Your task to perform on an android device: Open the calendar and show me this week's events Image 0: 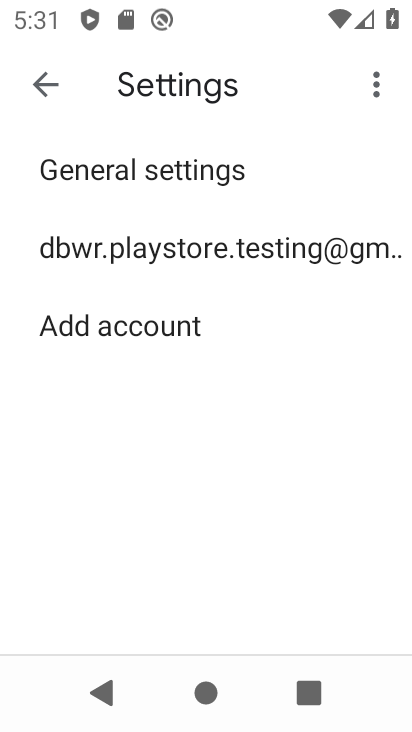
Step 0: press back button
Your task to perform on an android device: Open the calendar and show me this week's events Image 1: 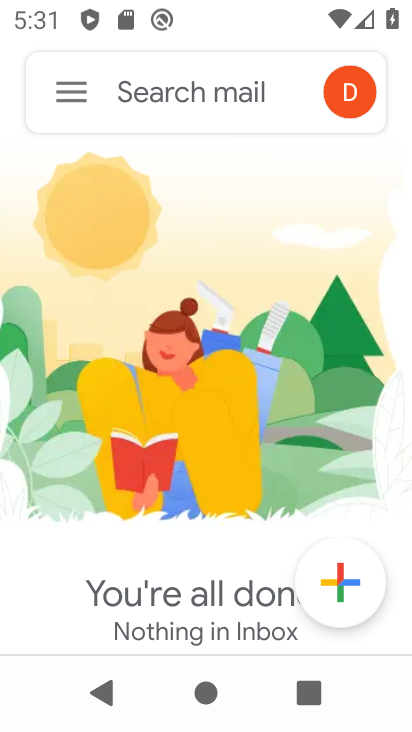
Step 1: press back button
Your task to perform on an android device: Open the calendar and show me this week's events Image 2: 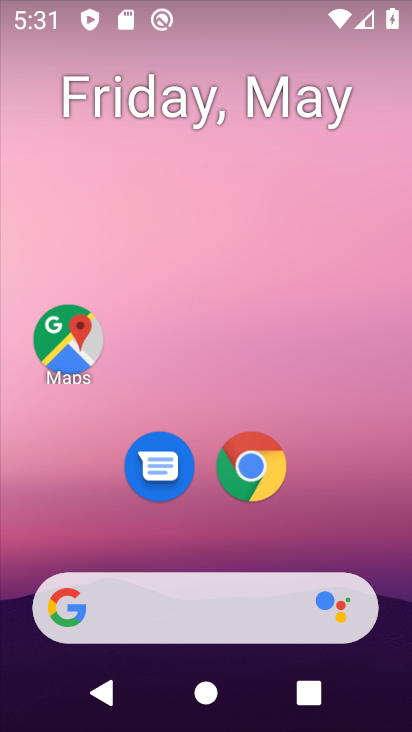
Step 2: drag from (406, 554) to (248, 3)
Your task to perform on an android device: Open the calendar and show me this week's events Image 3: 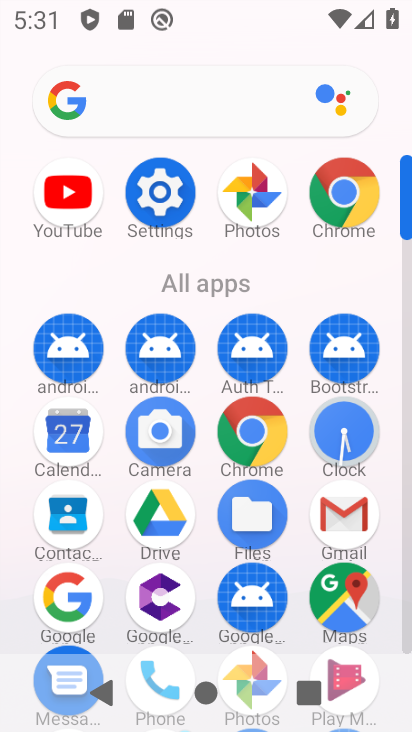
Step 3: drag from (6, 601) to (5, 278)
Your task to perform on an android device: Open the calendar and show me this week's events Image 4: 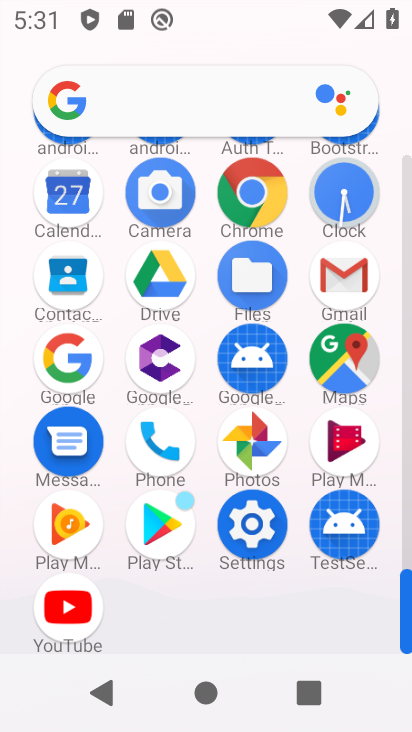
Step 4: click (67, 188)
Your task to perform on an android device: Open the calendar and show me this week's events Image 5: 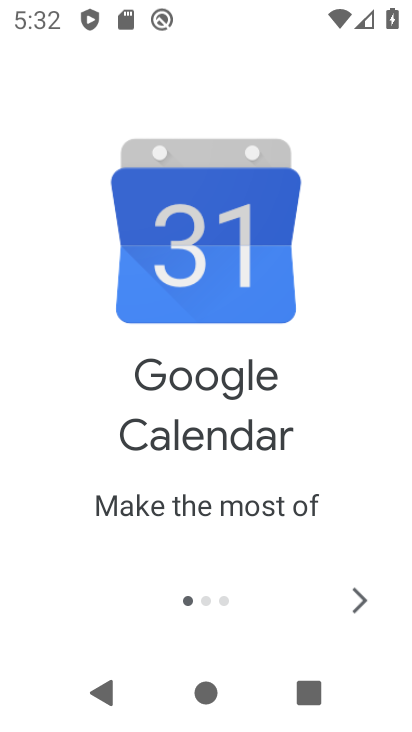
Step 5: click (359, 605)
Your task to perform on an android device: Open the calendar and show me this week's events Image 6: 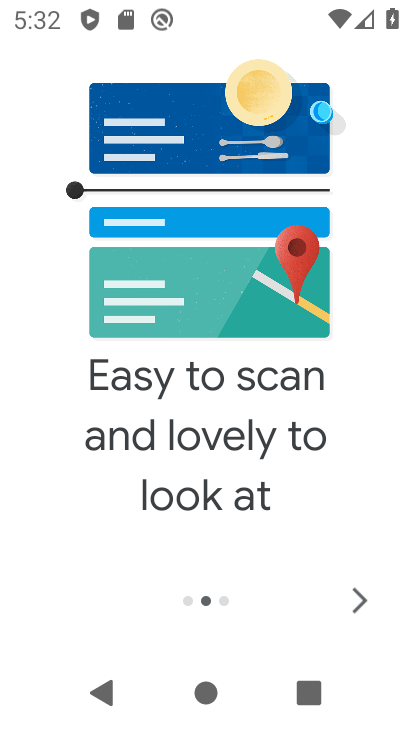
Step 6: click (357, 605)
Your task to perform on an android device: Open the calendar and show me this week's events Image 7: 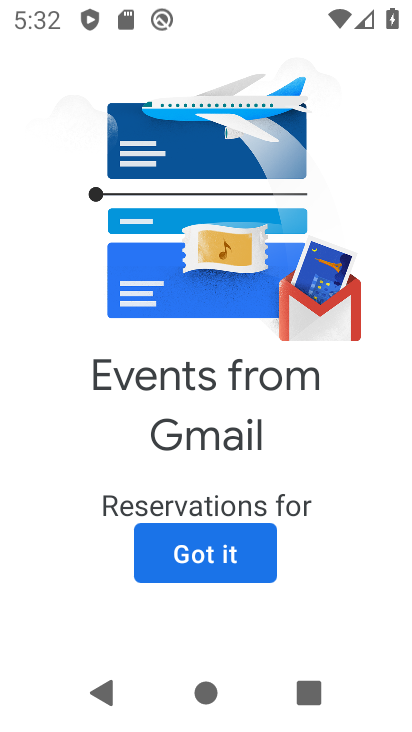
Step 7: click (238, 554)
Your task to perform on an android device: Open the calendar and show me this week's events Image 8: 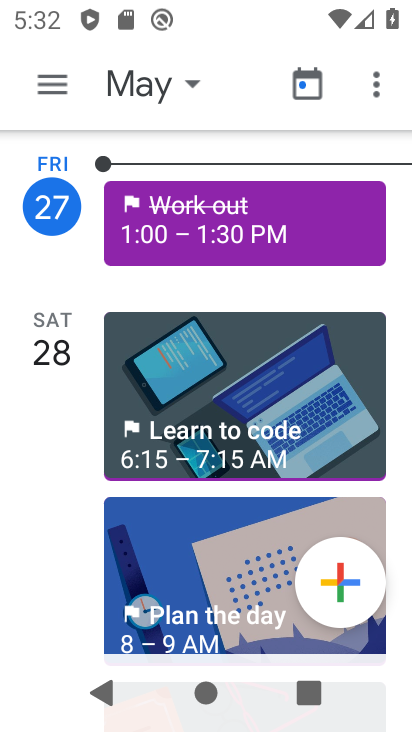
Step 8: click (58, 83)
Your task to perform on an android device: Open the calendar and show me this week's events Image 9: 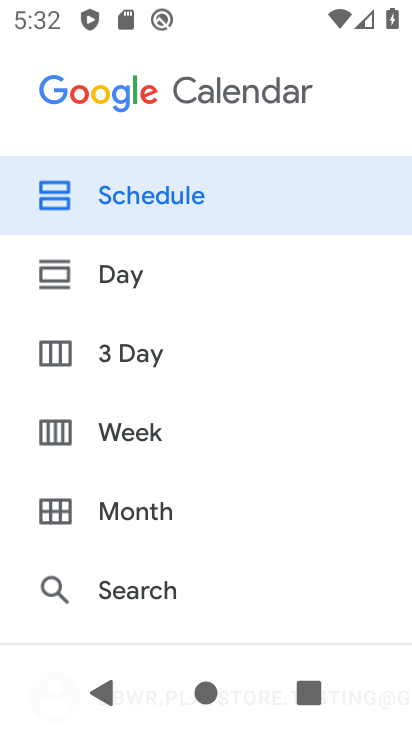
Step 9: click (144, 433)
Your task to perform on an android device: Open the calendar and show me this week's events Image 10: 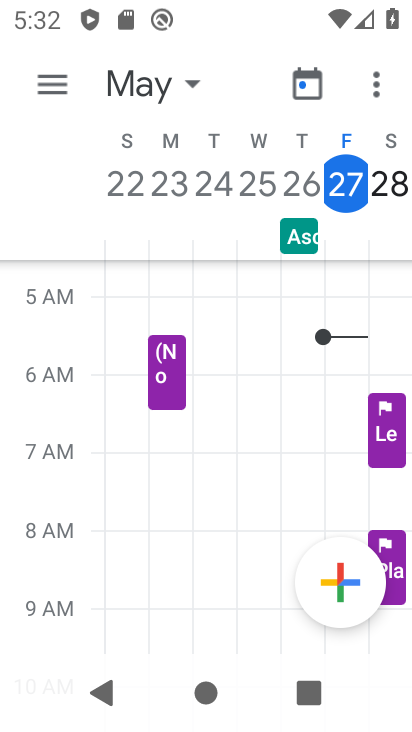
Step 10: task complete